Your task to perform on an android device: toggle priority inbox in the gmail app Image 0: 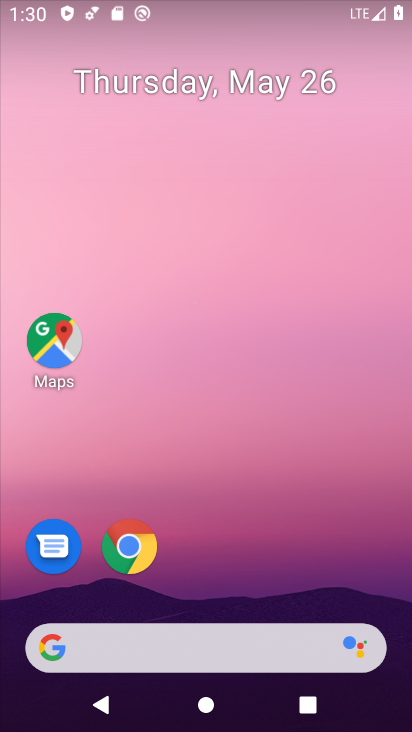
Step 0: drag from (277, 442) to (219, 6)
Your task to perform on an android device: toggle priority inbox in the gmail app Image 1: 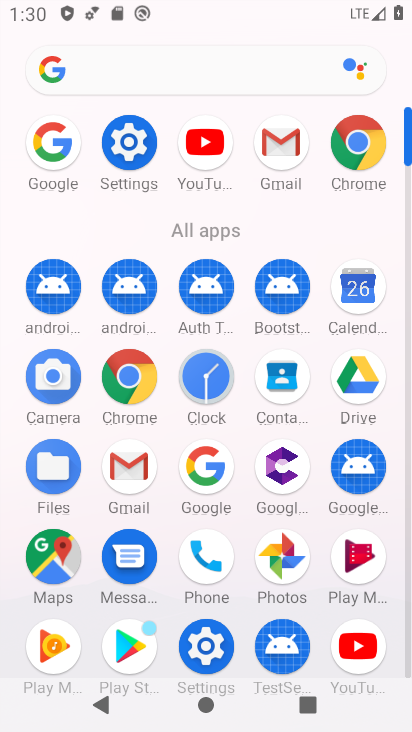
Step 1: click (287, 140)
Your task to perform on an android device: toggle priority inbox in the gmail app Image 2: 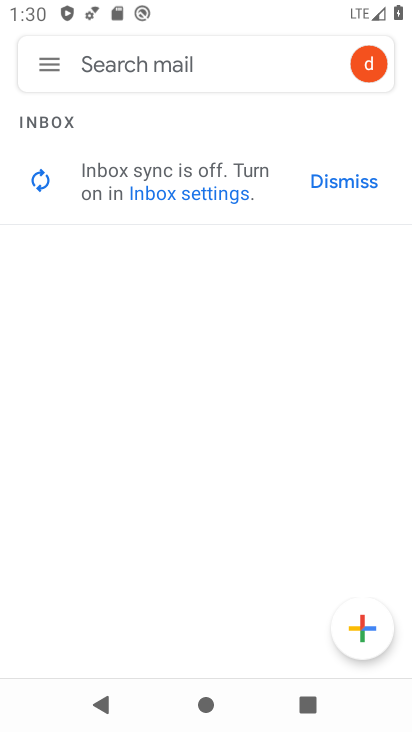
Step 2: click (43, 57)
Your task to perform on an android device: toggle priority inbox in the gmail app Image 3: 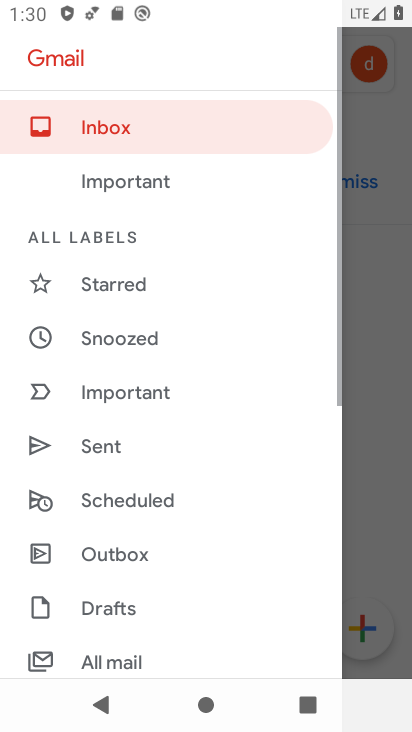
Step 3: drag from (179, 597) to (175, 18)
Your task to perform on an android device: toggle priority inbox in the gmail app Image 4: 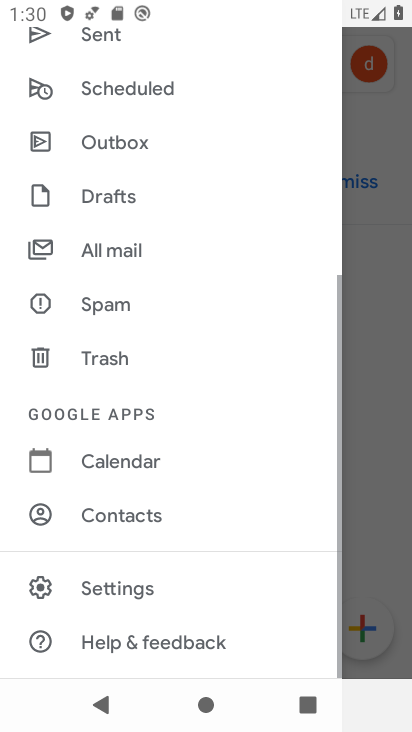
Step 4: click (130, 577)
Your task to perform on an android device: toggle priority inbox in the gmail app Image 5: 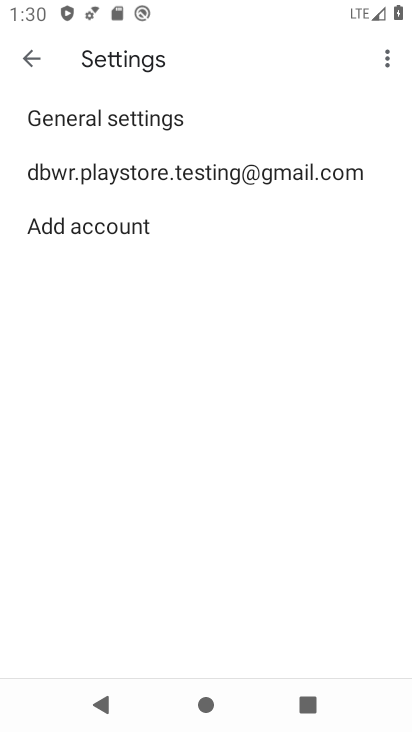
Step 5: click (149, 169)
Your task to perform on an android device: toggle priority inbox in the gmail app Image 6: 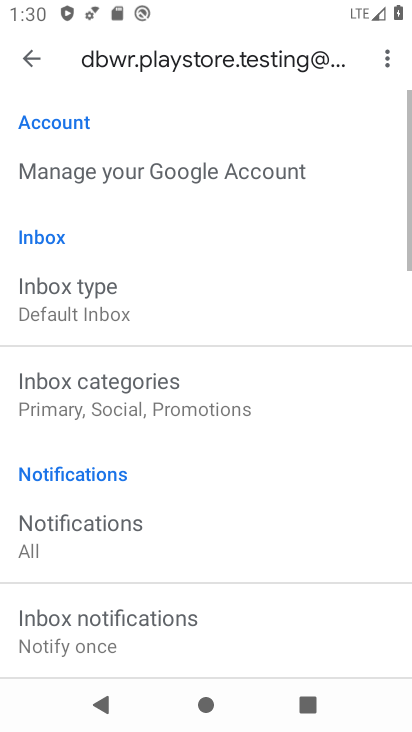
Step 6: click (108, 300)
Your task to perform on an android device: toggle priority inbox in the gmail app Image 7: 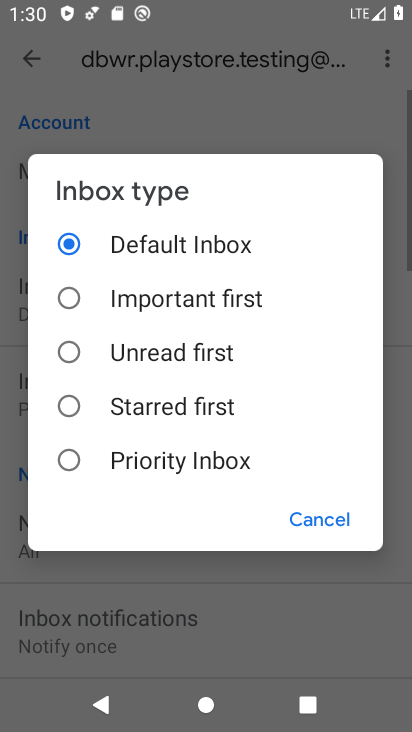
Step 7: click (154, 460)
Your task to perform on an android device: toggle priority inbox in the gmail app Image 8: 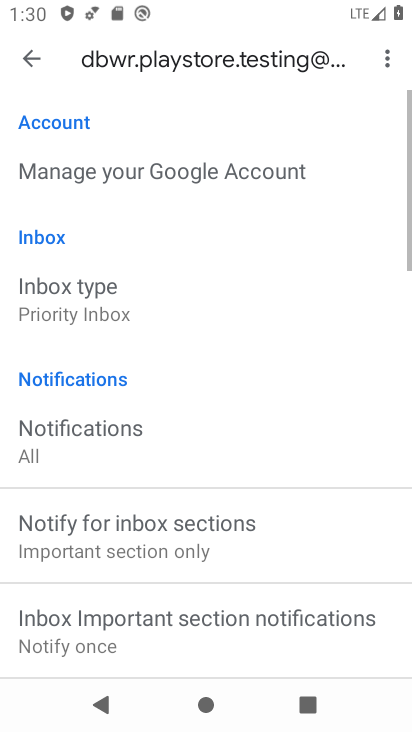
Step 8: task complete